Your task to perform on an android device: toggle improve location accuracy Image 0: 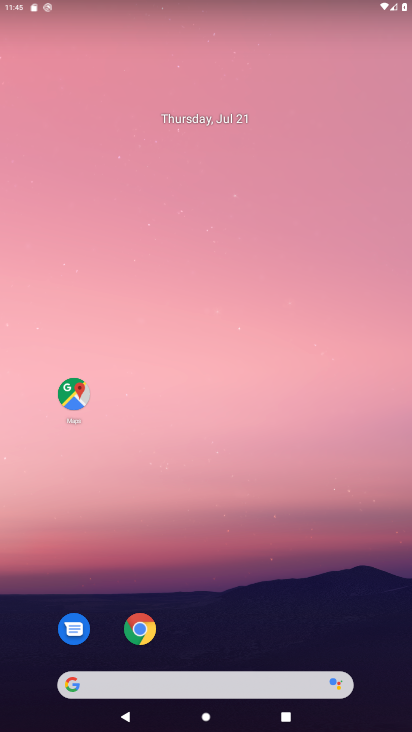
Step 0: drag from (212, 628) to (238, 45)
Your task to perform on an android device: toggle improve location accuracy Image 1: 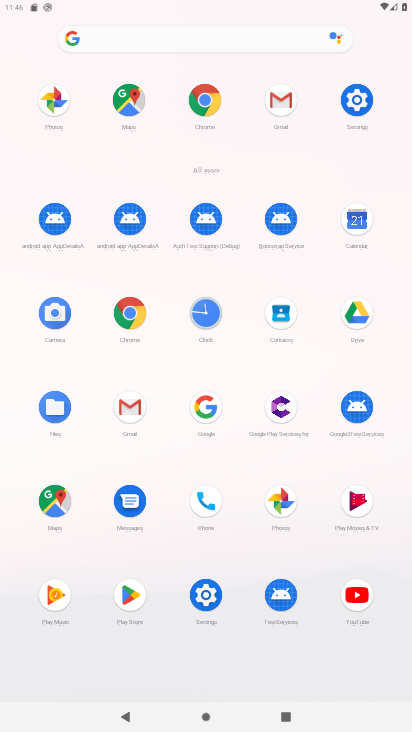
Step 1: click (219, 603)
Your task to perform on an android device: toggle improve location accuracy Image 2: 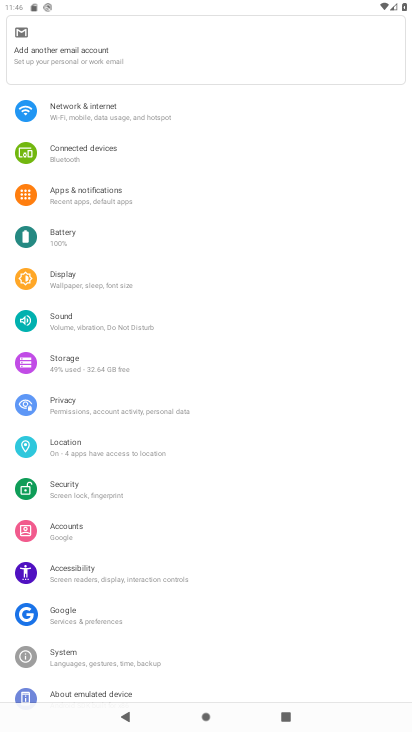
Step 2: click (78, 453)
Your task to perform on an android device: toggle improve location accuracy Image 3: 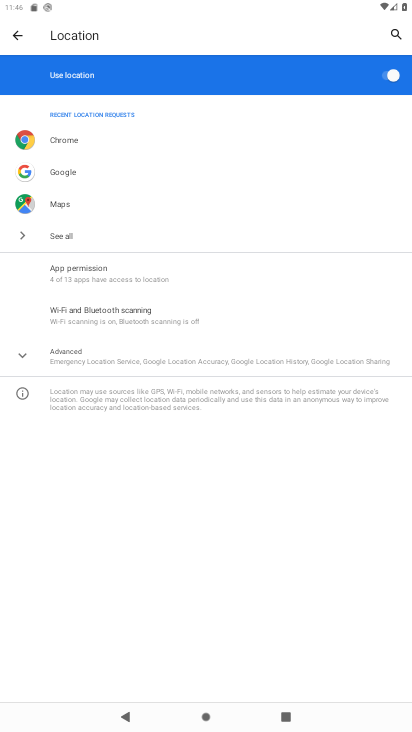
Step 3: click (125, 362)
Your task to perform on an android device: toggle improve location accuracy Image 4: 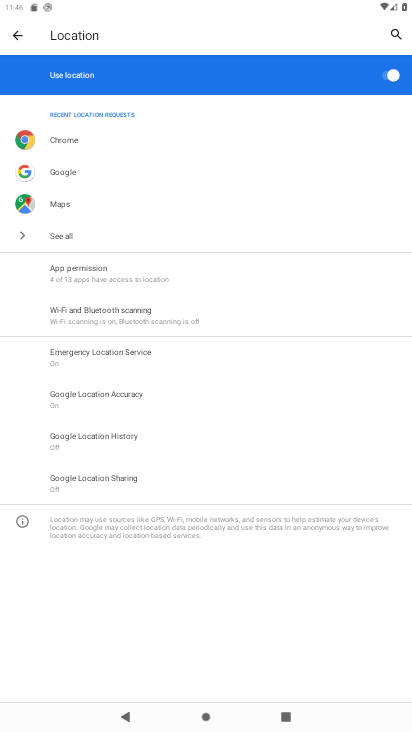
Step 4: click (135, 394)
Your task to perform on an android device: toggle improve location accuracy Image 5: 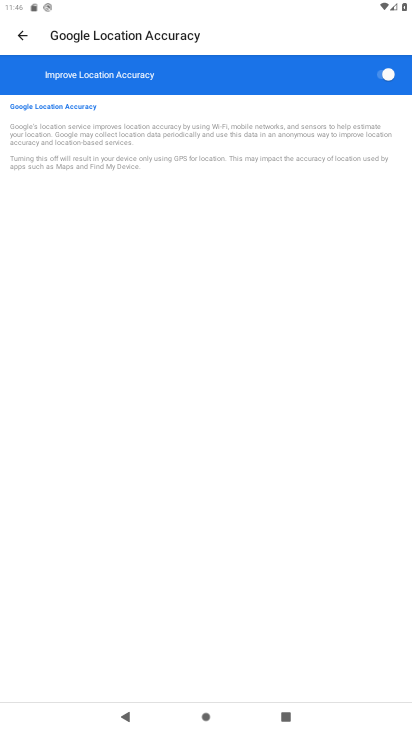
Step 5: click (363, 74)
Your task to perform on an android device: toggle improve location accuracy Image 6: 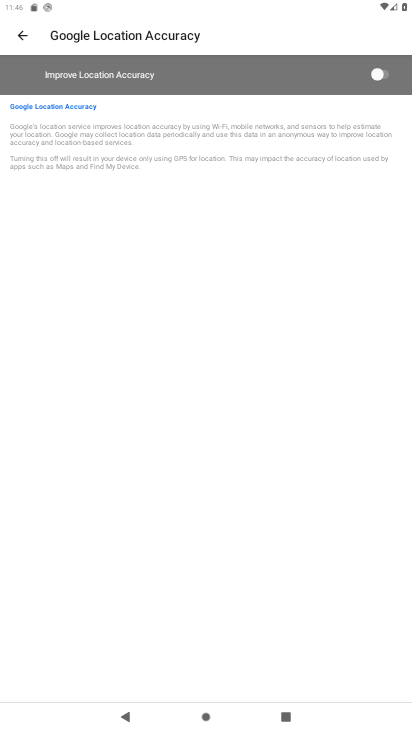
Step 6: task complete